Your task to perform on an android device: Do I have any events today? Image 0: 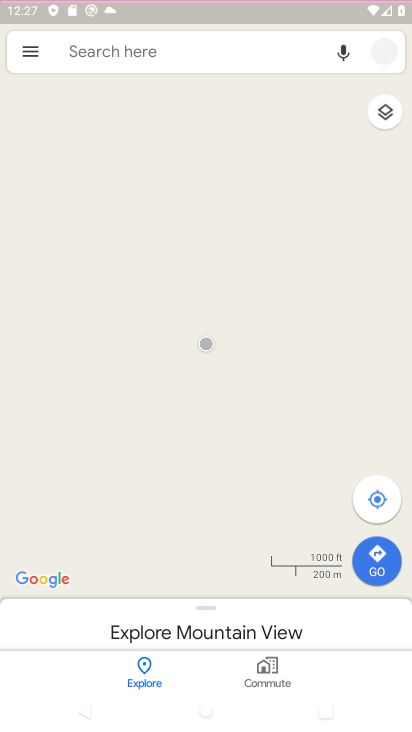
Step 0: drag from (263, 649) to (330, 62)
Your task to perform on an android device: Do I have any events today? Image 1: 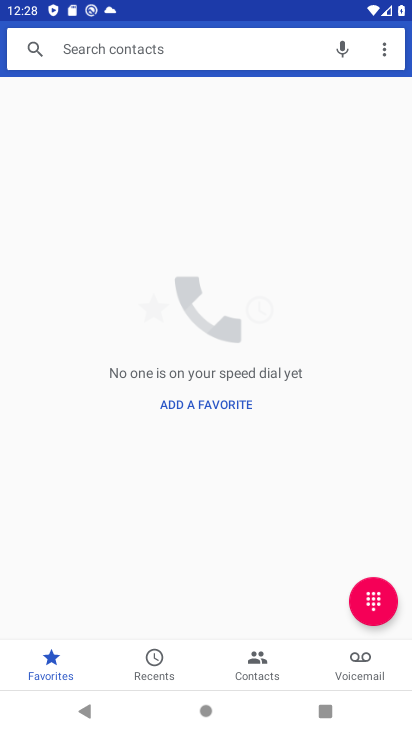
Step 1: press home button
Your task to perform on an android device: Do I have any events today? Image 2: 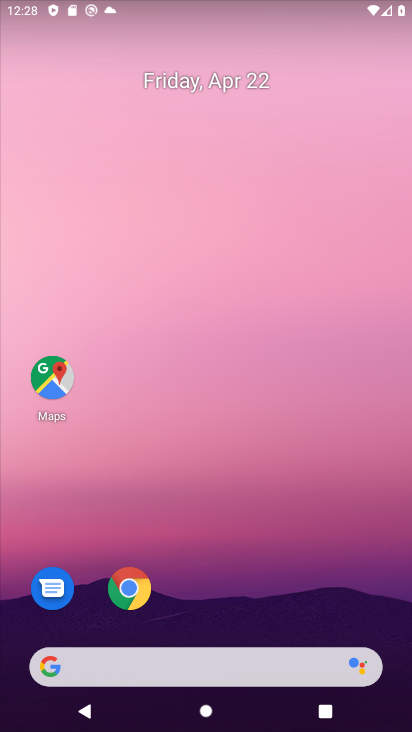
Step 2: drag from (276, 690) to (290, 200)
Your task to perform on an android device: Do I have any events today? Image 3: 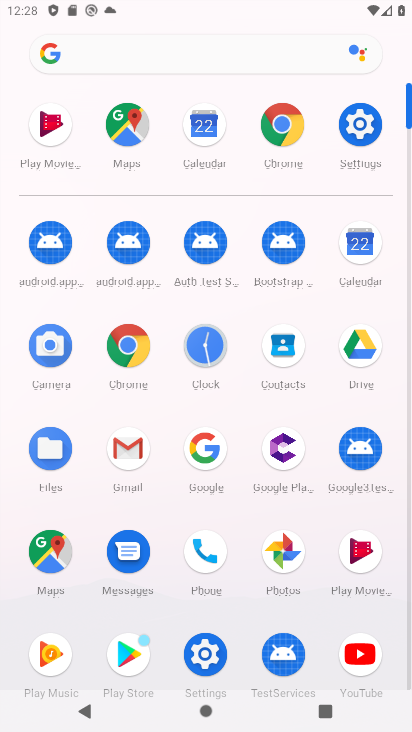
Step 3: click (184, 48)
Your task to perform on an android device: Do I have any events today? Image 4: 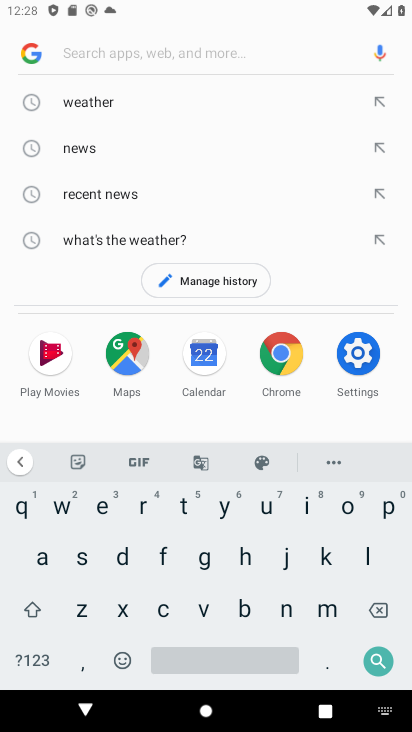
Step 4: click (115, 109)
Your task to perform on an android device: Do I have any events today? Image 5: 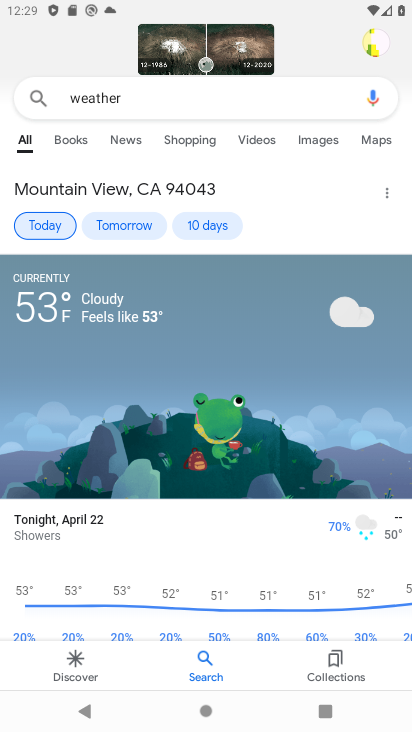
Step 5: click (134, 225)
Your task to perform on an android device: Do I have any events today? Image 6: 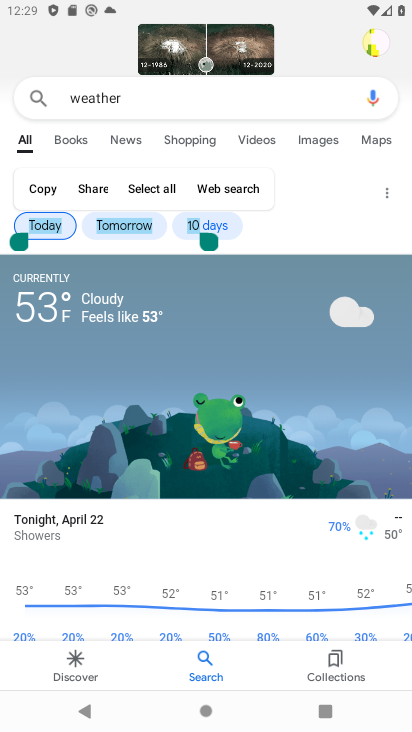
Step 6: click (69, 216)
Your task to perform on an android device: Do I have any events today? Image 7: 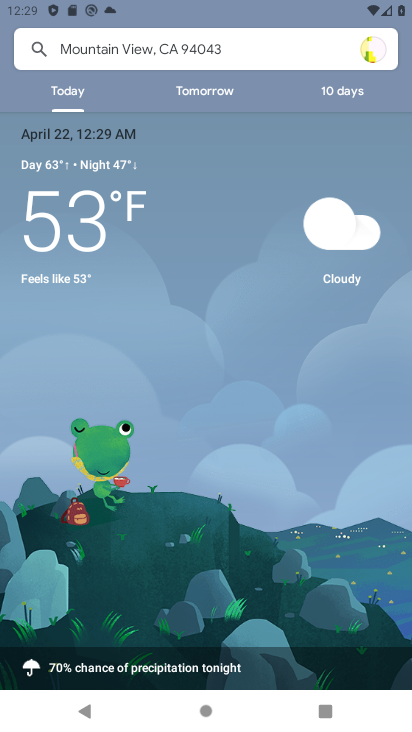
Step 7: task complete